Your task to perform on an android device: What's the weather today? Image 0: 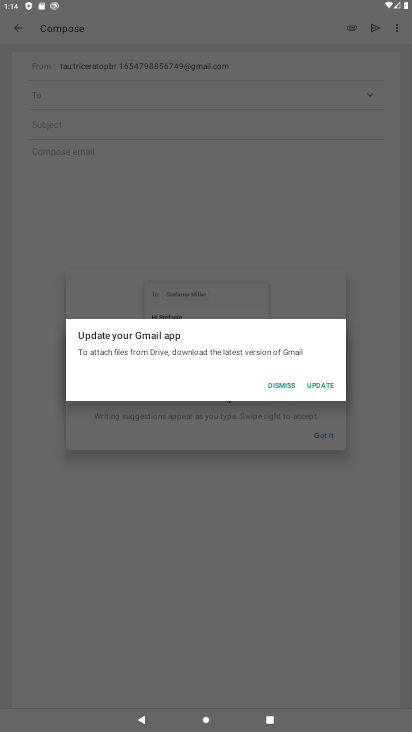
Step 0: press home button
Your task to perform on an android device: What's the weather today? Image 1: 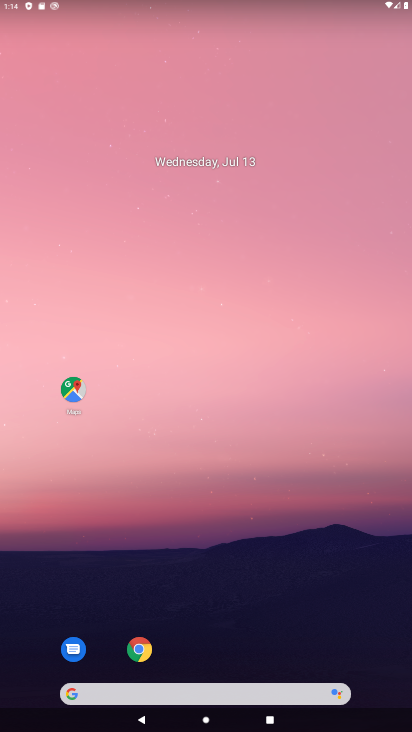
Step 1: click (184, 693)
Your task to perform on an android device: What's the weather today? Image 2: 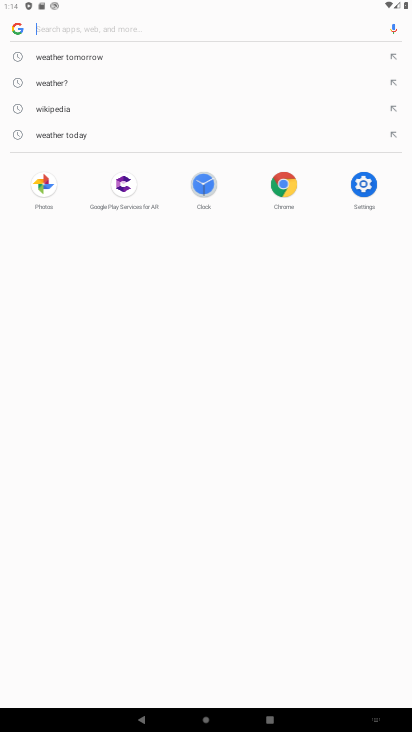
Step 2: type "weather today"
Your task to perform on an android device: What's the weather today? Image 3: 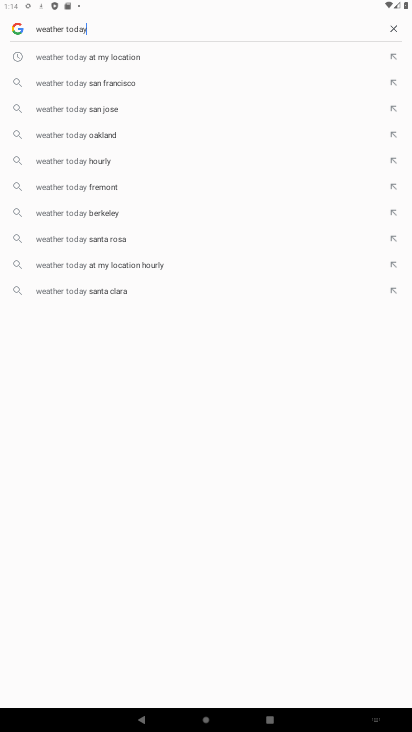
Step 3: click (149, 63)
Your task to perform on an android device: What's the weather today? Image 4: 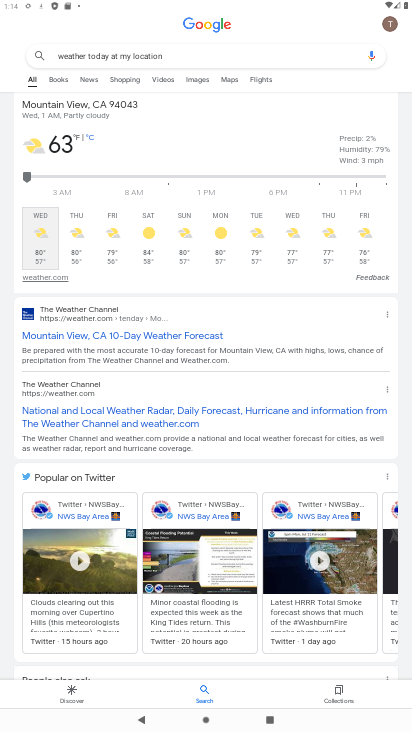
Step 4: task complete